Your task to perform on an android device: Open the map Image 0: 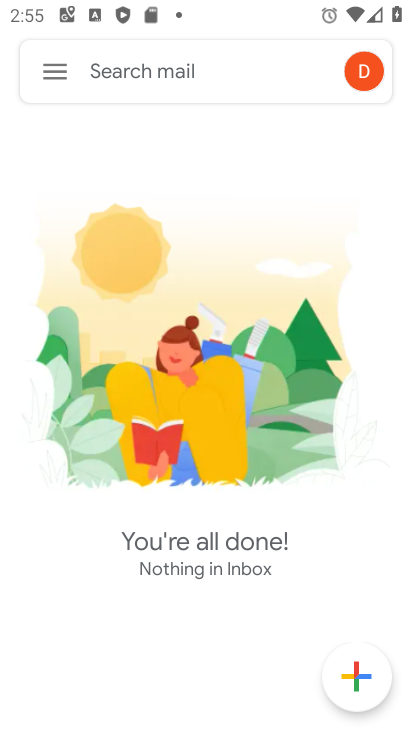
Step 0: drag from (235, 597) to (241, 179)
Your task to perform on an android device: Open the map Image 1: 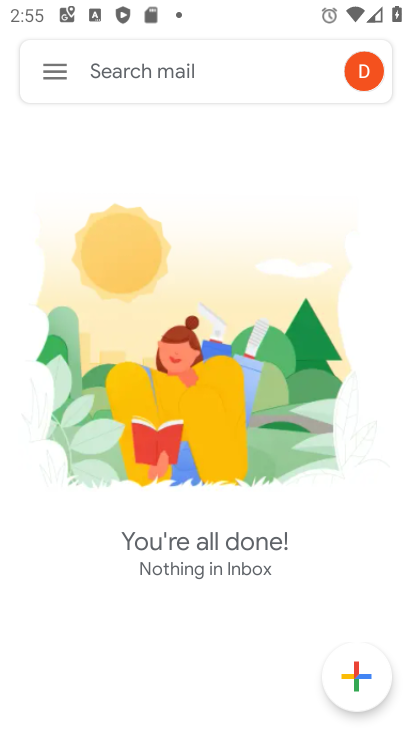
Step 1: press home button
Your task to perform on an android device: Open the map Image 2: 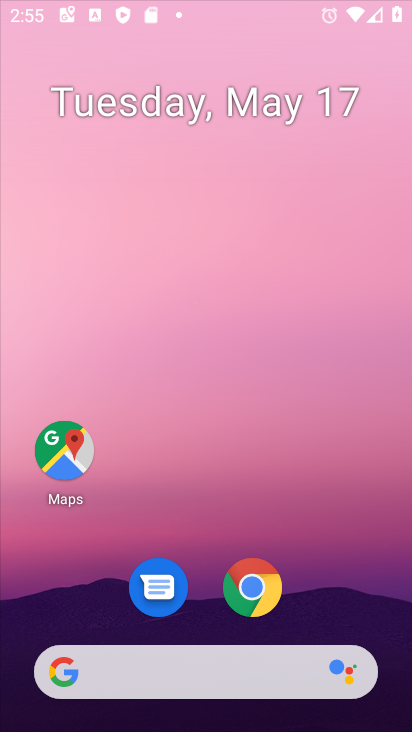
Step 2: drag from (209, 635) to (240, 49)
Your task to perform on an android device: Open the map Image 3: 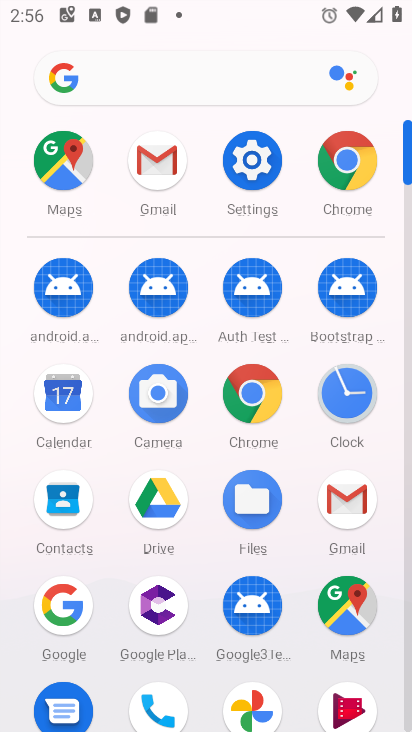
Step 3: click (354, 616)
Your task to perform on an android device: Open the map Image 4: 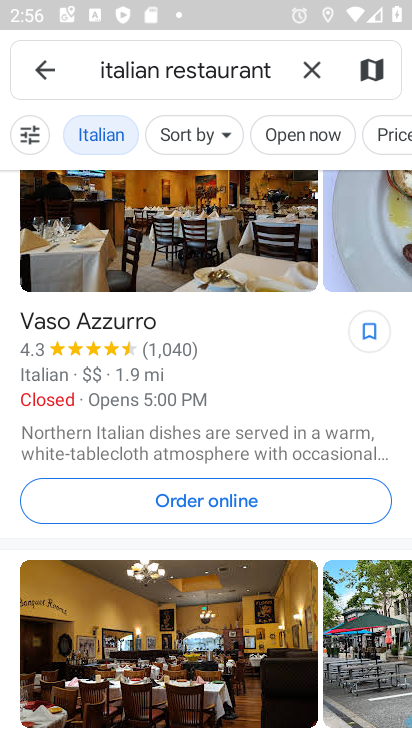
Step 4: click (48, 63)
Your task to perform on an android device: Open the map Image 5: 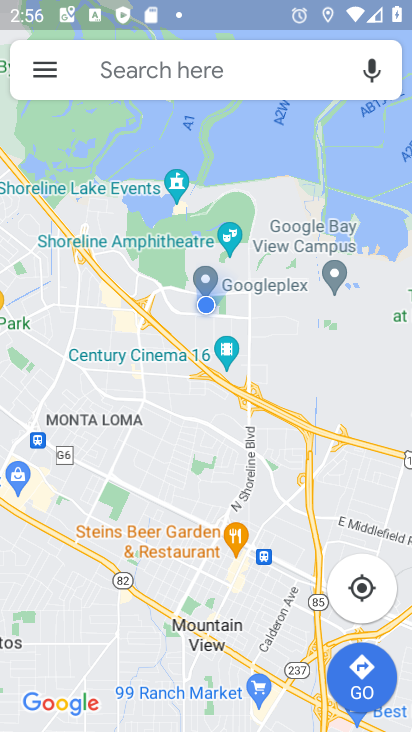
Step 5: task complete